Your task to perform on an android device: turn off priority inbox in the gmail app Image 0: 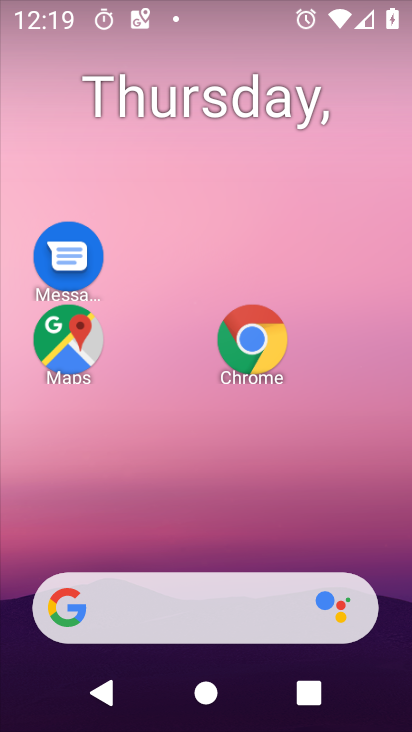
Step 0: drag from (205, 467) to (224, 47)
Your task to perform on an android device: turn off priority inbox in the gmail app Image 1: 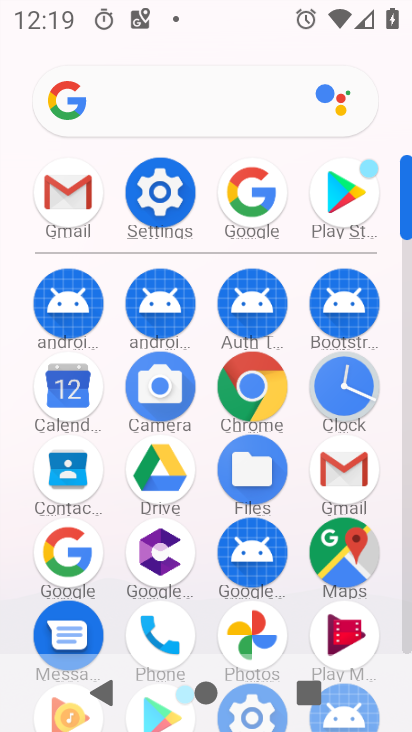
Step 1: click (70, 182)
Your task to perform on an android device: turn off priority inbox in the gmail app Image 2: 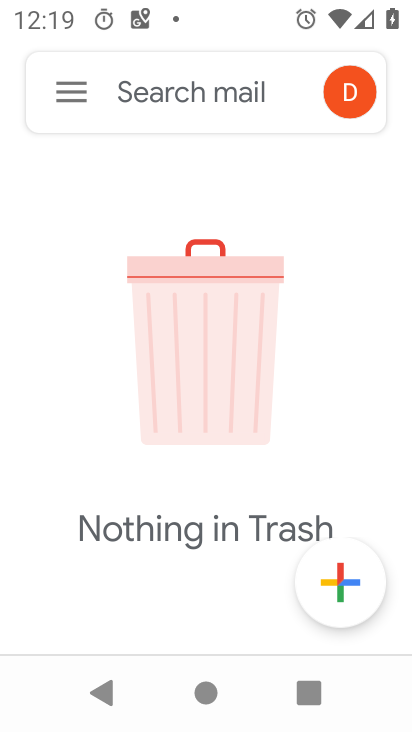
Step 2: click (73, 94)
Your task to perform on an android device: turn off priority inbox in the gmail app Image 3: 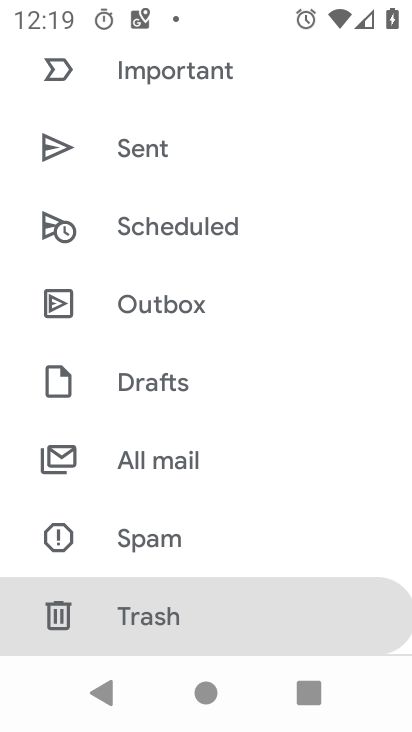
Step 3: drag from (179, 575) to (298, 86)
Your task to perform on an android device: turn off priority inbox in the gmail app Image 4: 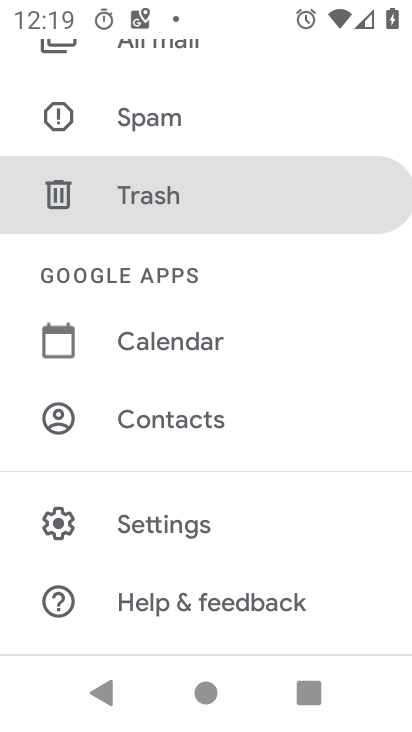
Step 4: click (145, 504)
Your task to perform on an android device: turn off priority inbox in the gmail app Image 5: 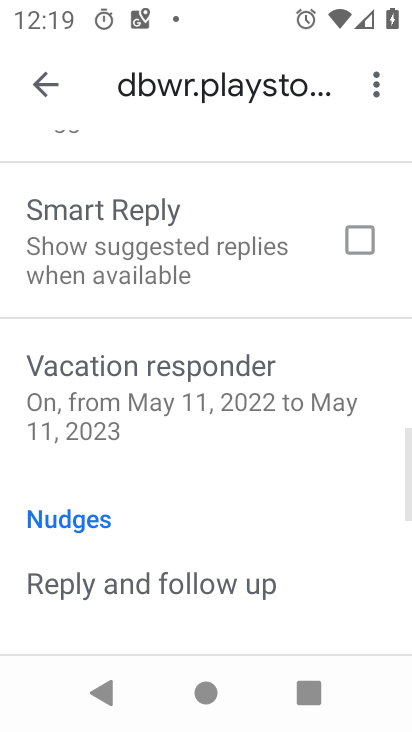
Step 5: drag from (183, 275) to (208, 570)
Your task to perform on an android device: turn off priority inbox in the gmail app Image 6: 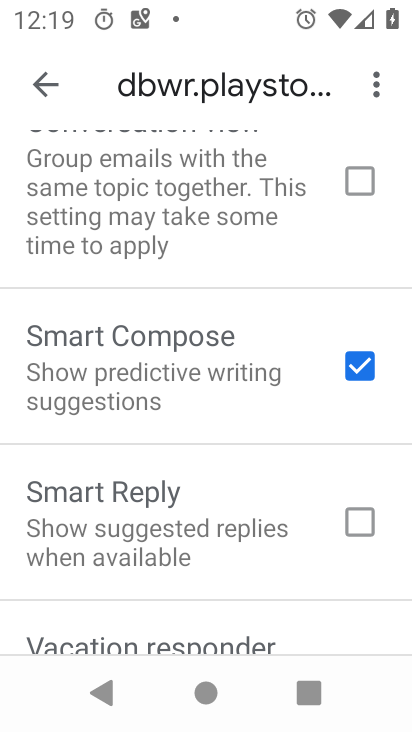
Step 6: drag from (204, 310) to (234, 686)
Your task to perform on an android device: turn off priority inbox in the gmail app Image 7: 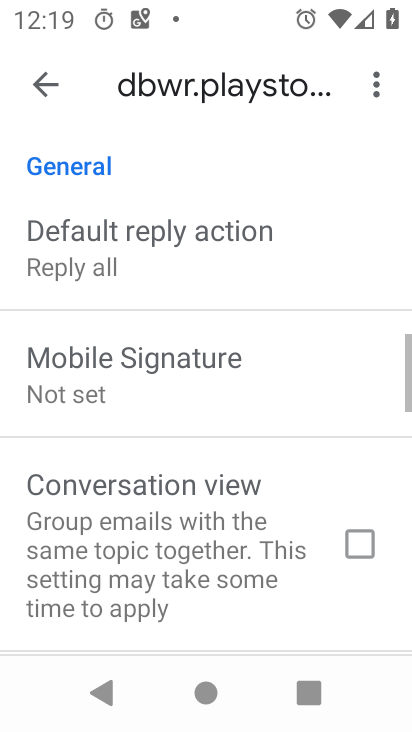
Step 7: drag from (165, 247) to (169, 641)
Your task to perform on an android device: turn off priority inbox in the gmail app Image 8: 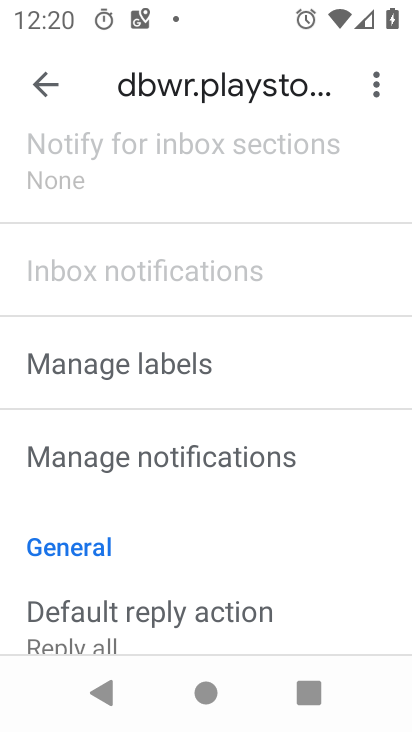
Step 8: drag from (158, 229) to (160, 669)
Your task to perform on an android device: turn off priority inbox in the gmail app Image 9: 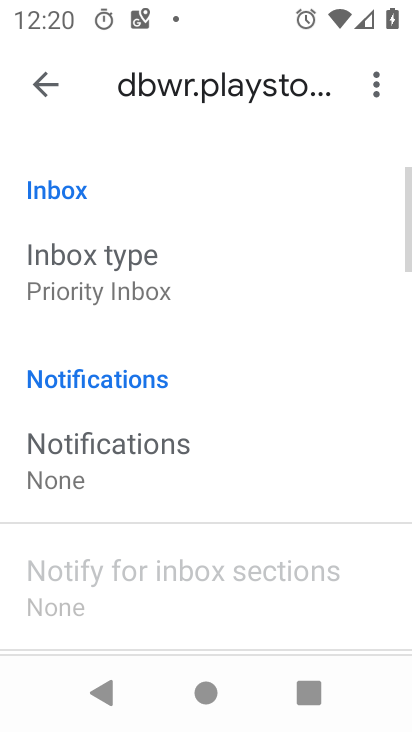
Step 9: click (161, 274)
Your task to perform on an android device: turn off priority inbox in the gmail app Image 10: 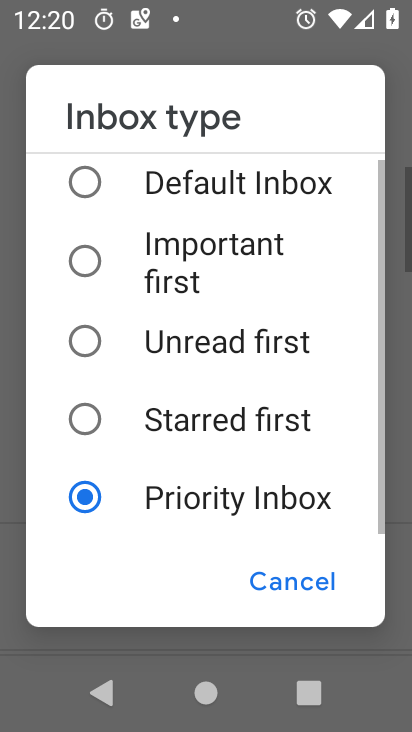
Step 10: click (81, 178)
Your task to perform on an android device: turn off priority inbox in the gmail app Image 11: 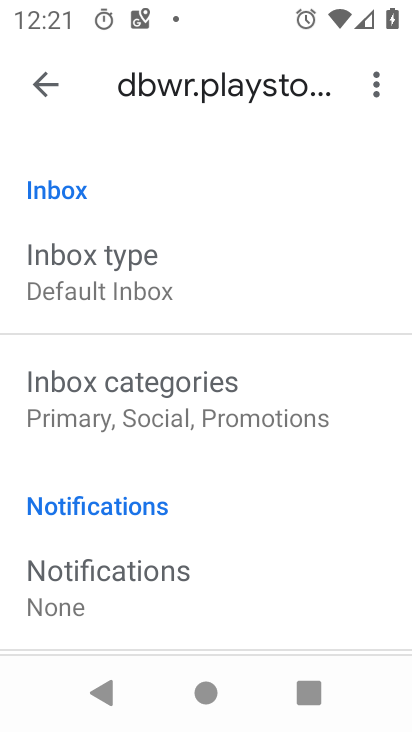
Step 11: task complete